Your task to perform on an android device: Go to Android settings Image 0: 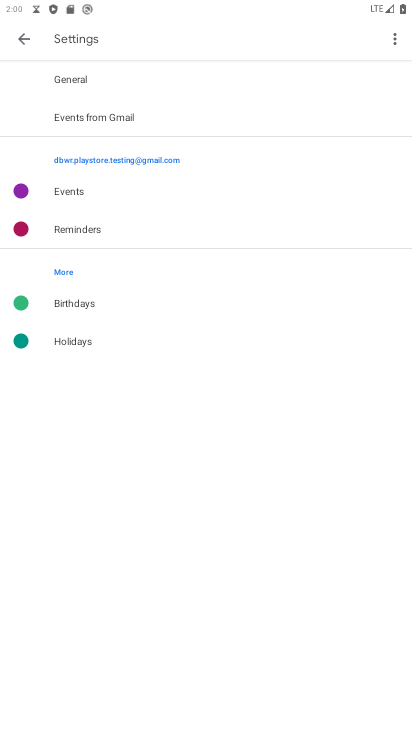
Step 0: press home button
Your task to perform on an android device: Go to Android settings Image 1: 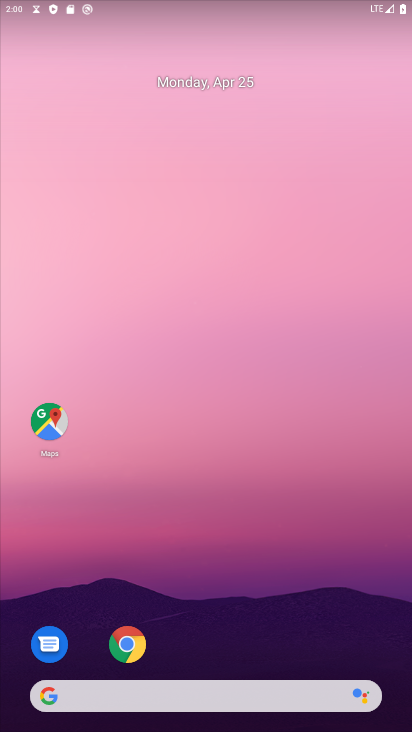
Step 1: drag from (373, 650) to (366, 94)
Your task to perform on an android device: Go to Android settings Image 2: 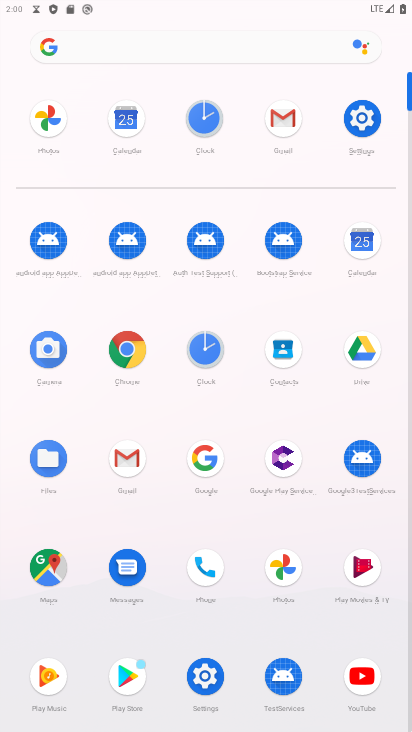
Step 2: click (363, 120)
Your task to perform on an android device: Go to Android settings Image 3: 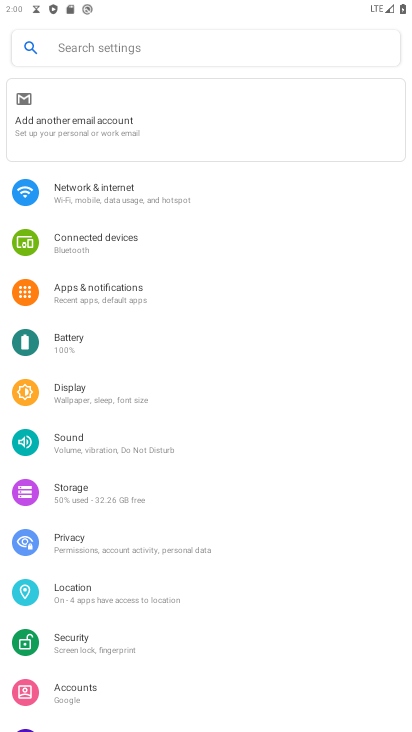
Step 3: task complete